Your task to perform on an android device: search for starred emails in the gmail app Image 0: 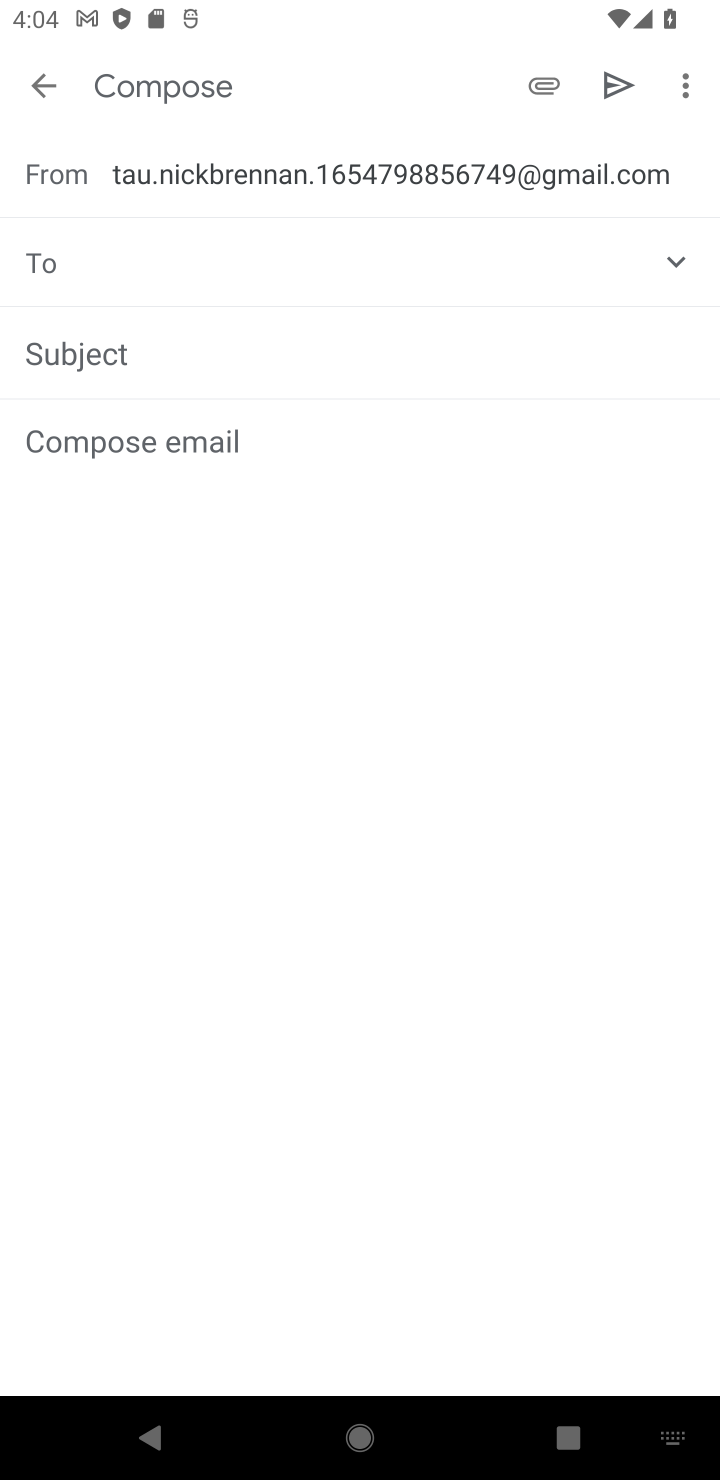
Step 0: press home button
Your task to perform on an android device: search for starred emails in the gmail app Image 1: 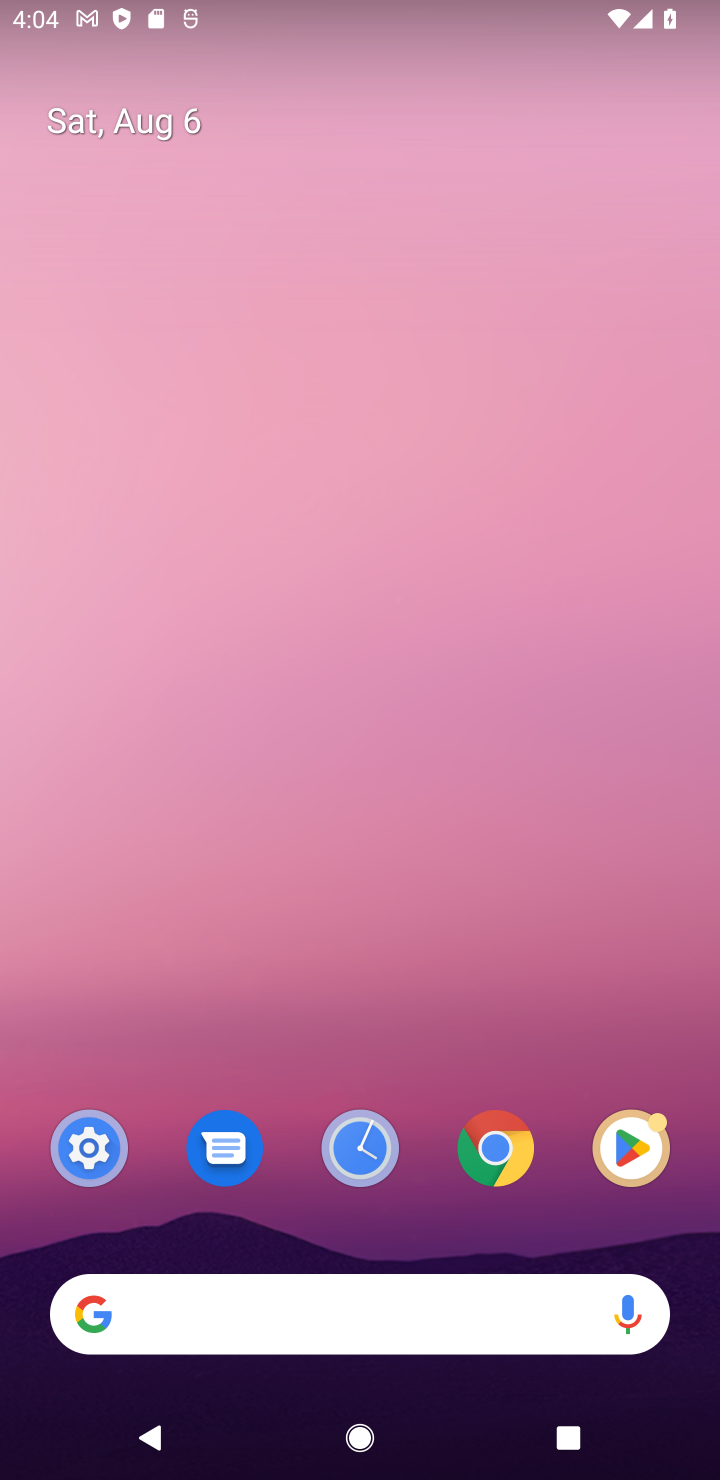
Step 1: drag from (319, 1142) to (356, 481)
Your task to perform on an android device: search for starred emails in the gmail app Image 2: 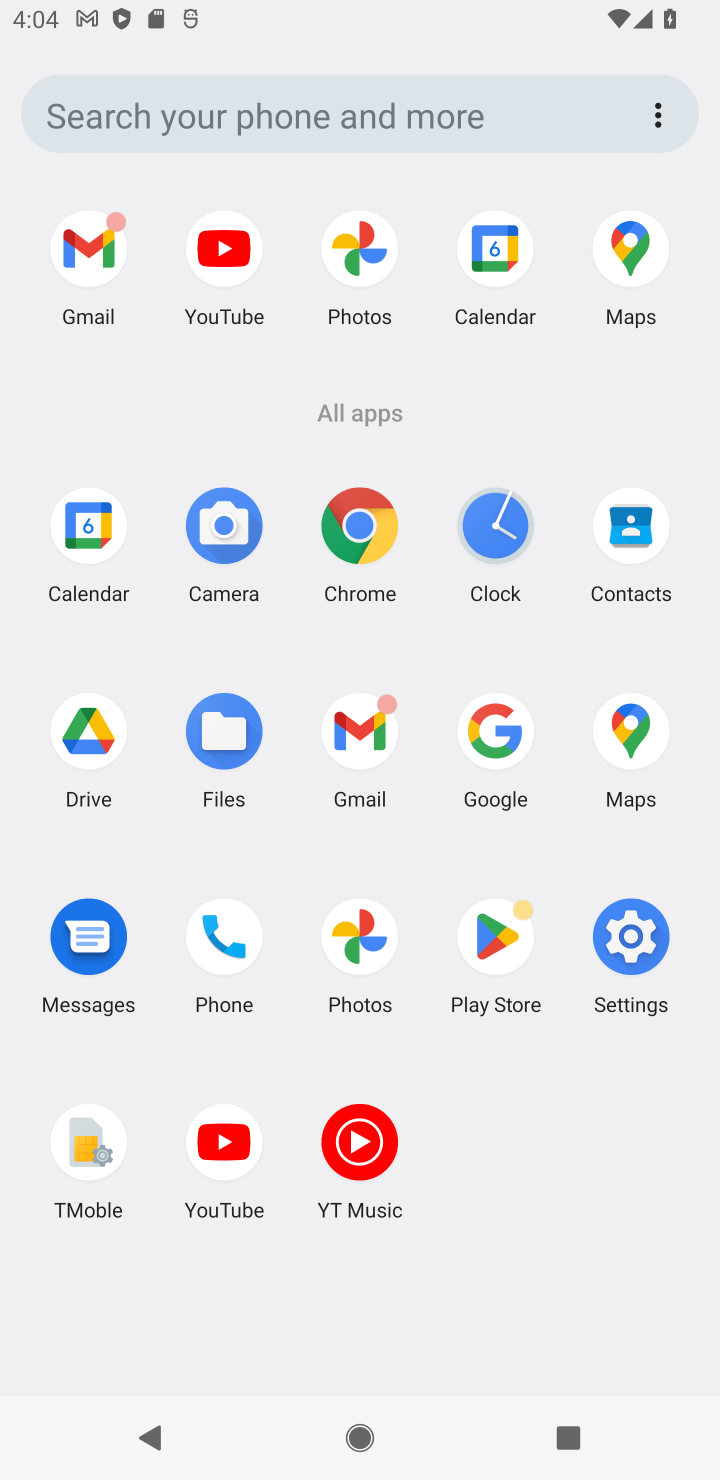
Step 2: click (362, 729)
Your task to perform on an android device: search for starred emails in the gmail app Image 3: 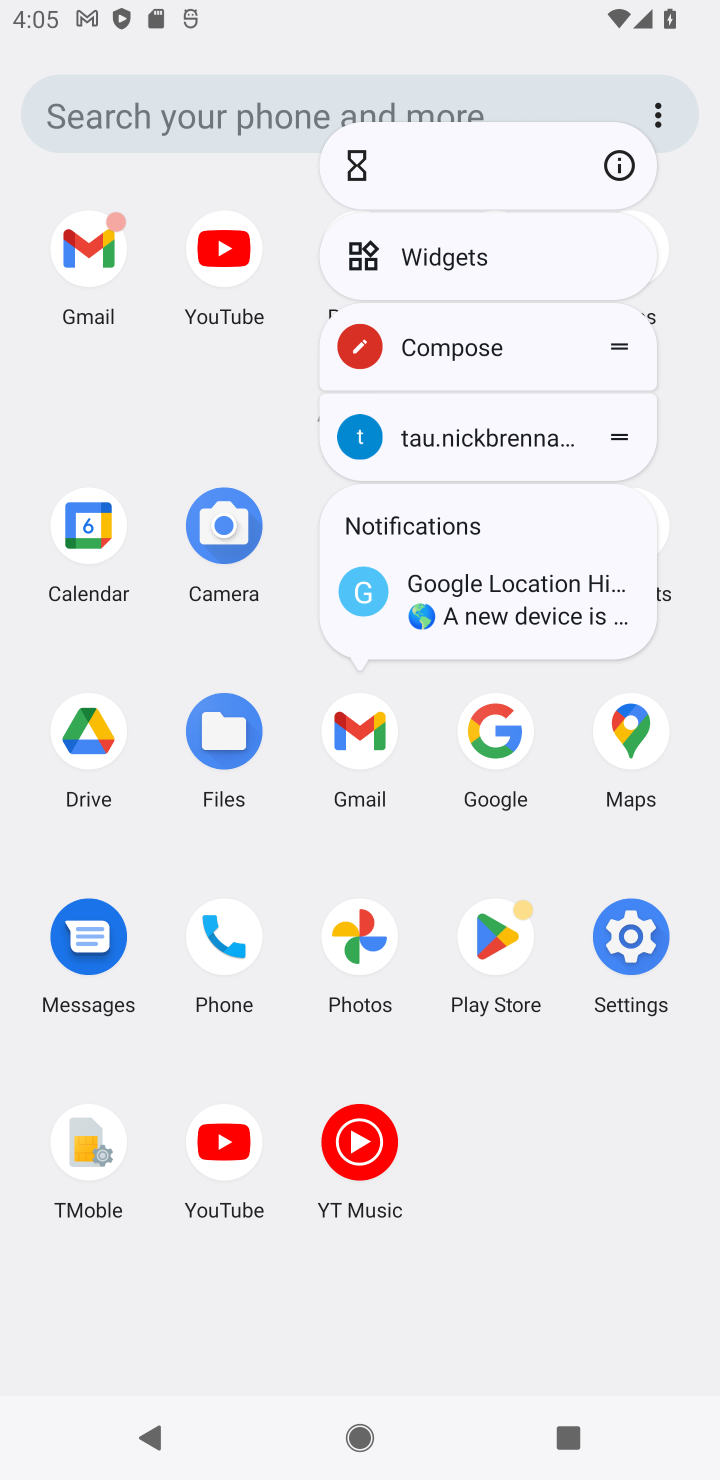
Step 3: click (610, 153)
Your task to perform on an android device: search for starred emails in the gmail app Image 4: 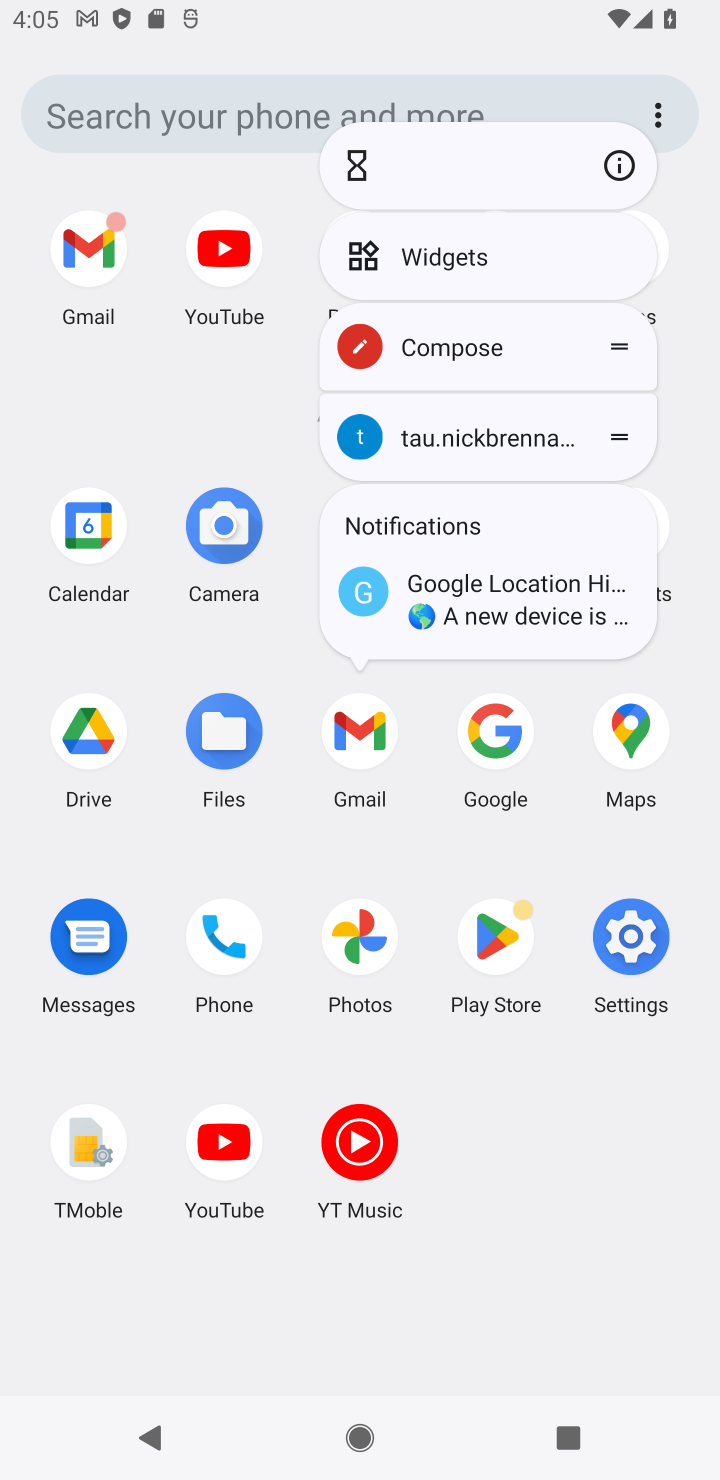
Step 4: click (615, 164)
Your task to perform on an android device: search for starred emails in the gmail app Image 5: 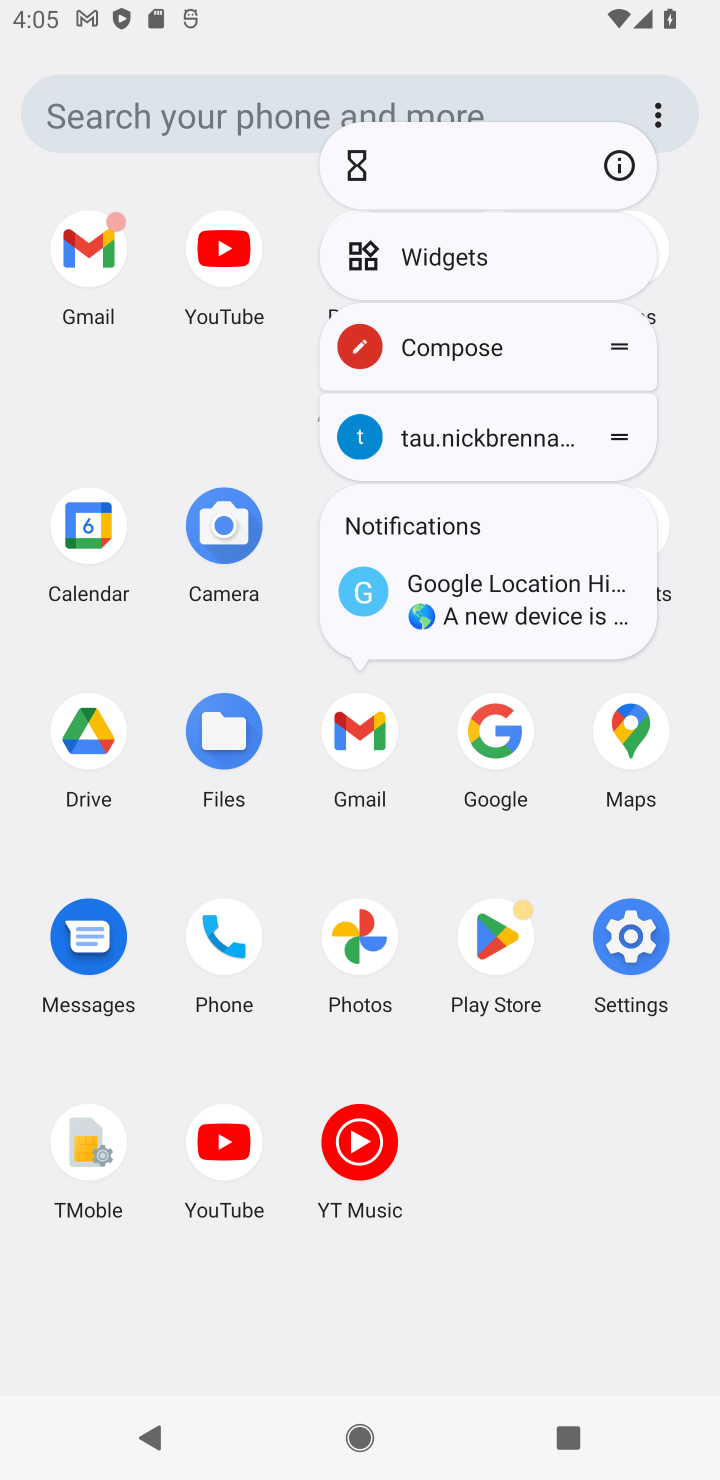
Step 5: click (617, 154)
Your task to perform on an android device: search for starred emails in the gmail app Image 6: 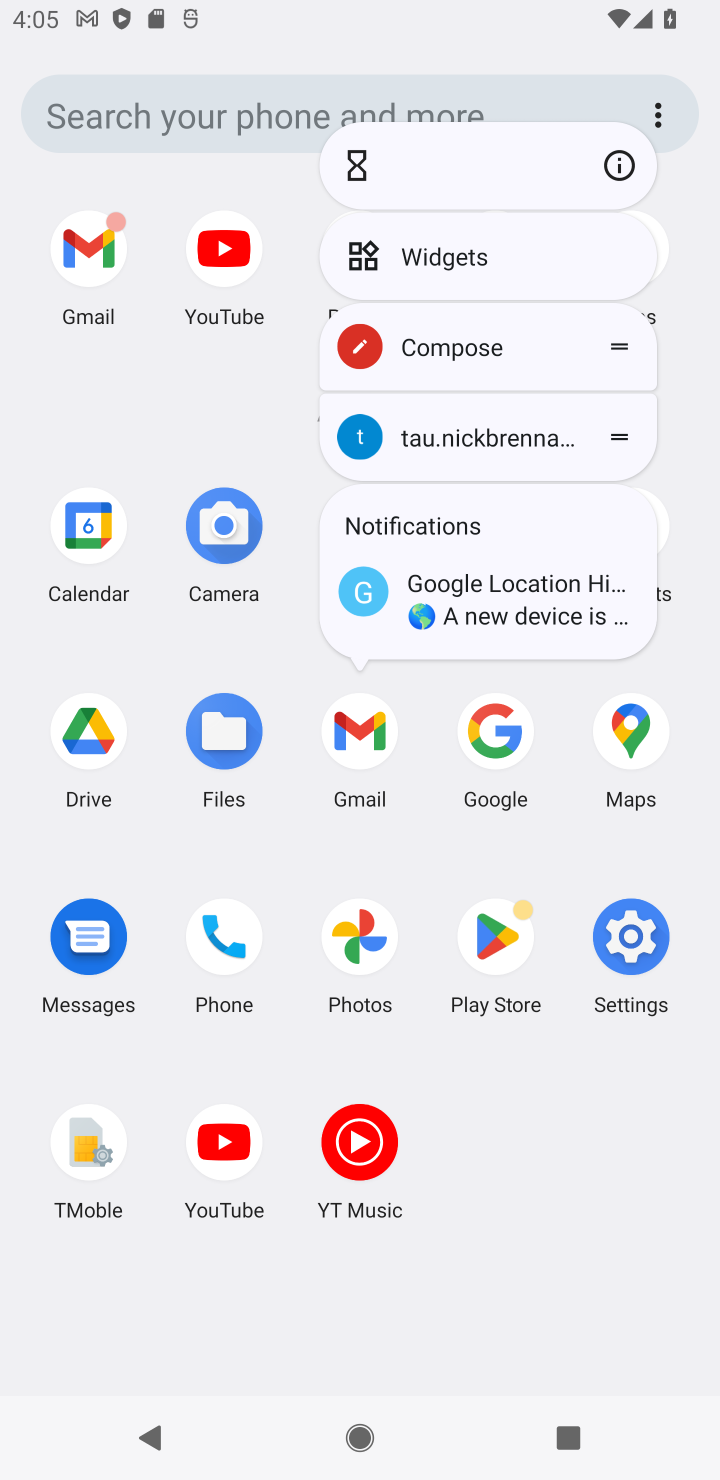
Step 6: click (625, 165)
Your task to perform on an android device: search for starred emails in the gmail app Image 7: 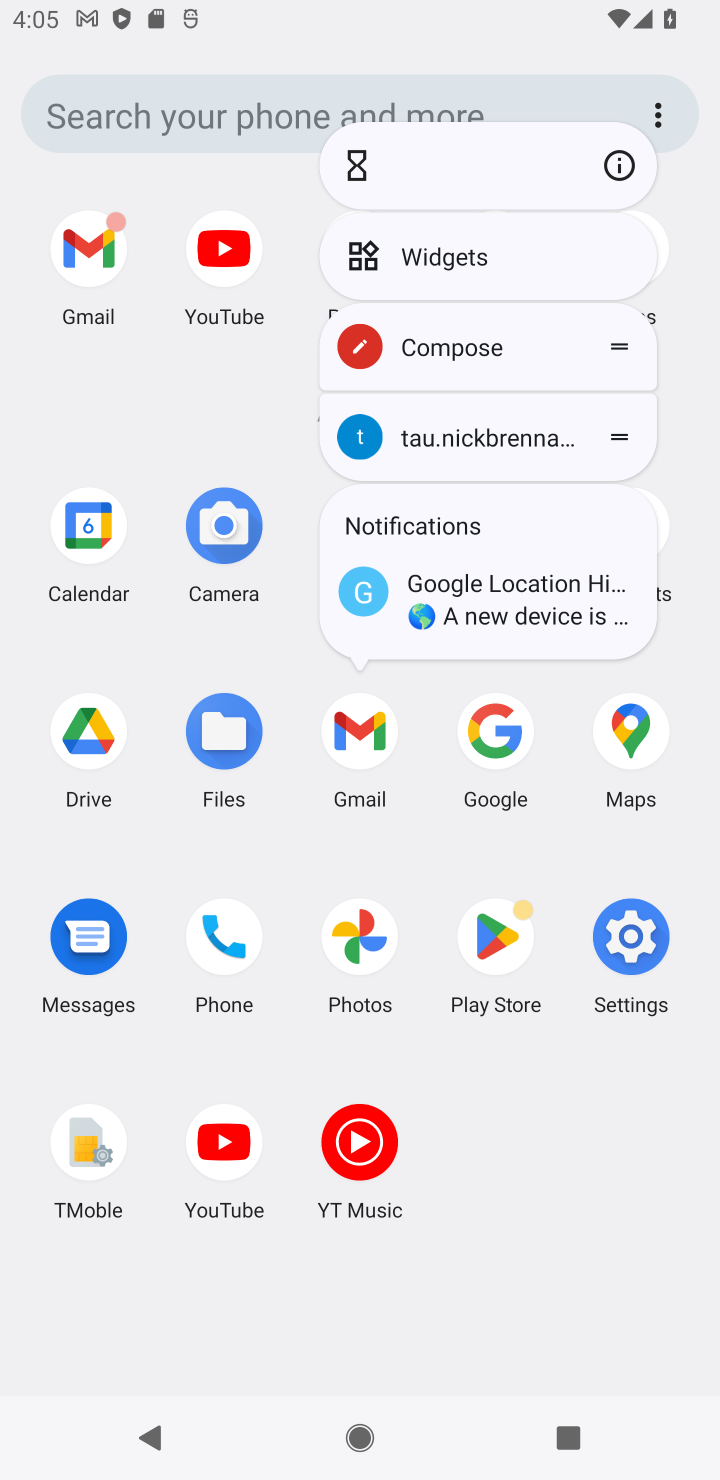
Step 7: click (601, 163)
Your task to perform on an android device: search for starred emails in the gmail app Image 8: 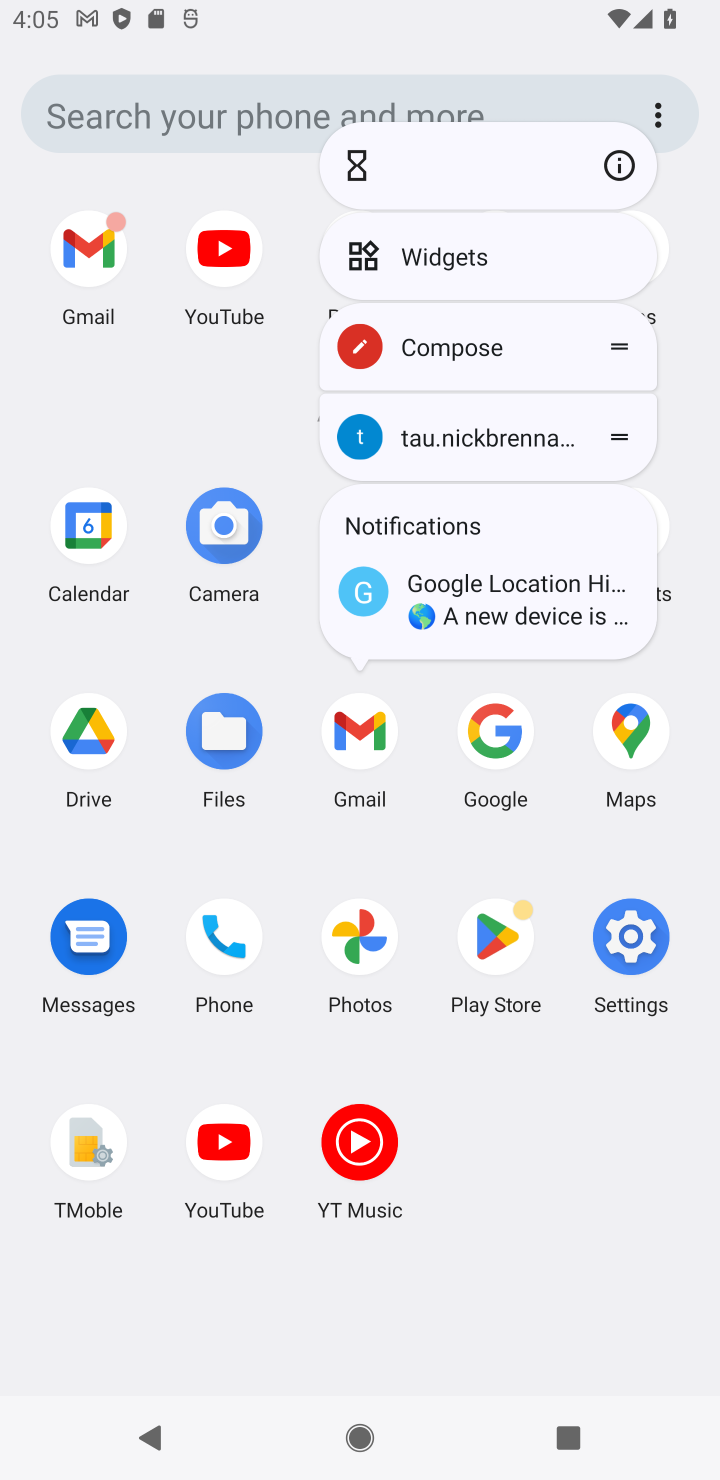
Step 8: click (623, 164)
Your task to perform on an android device: search for starred emails in the gmail app Image 9: 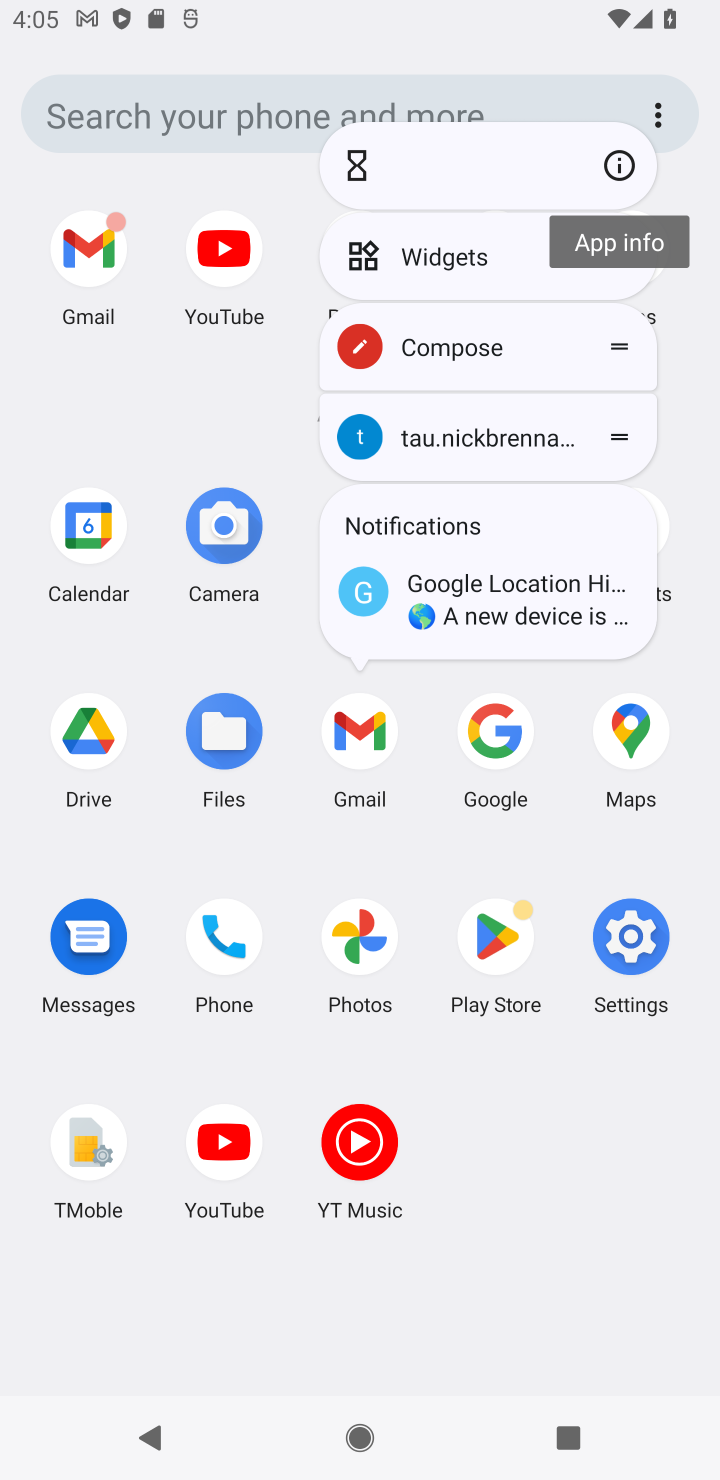
Step 9: click (623, 164)
Your task to perform on an android device: search for starred emails in the gmail app Image 10: 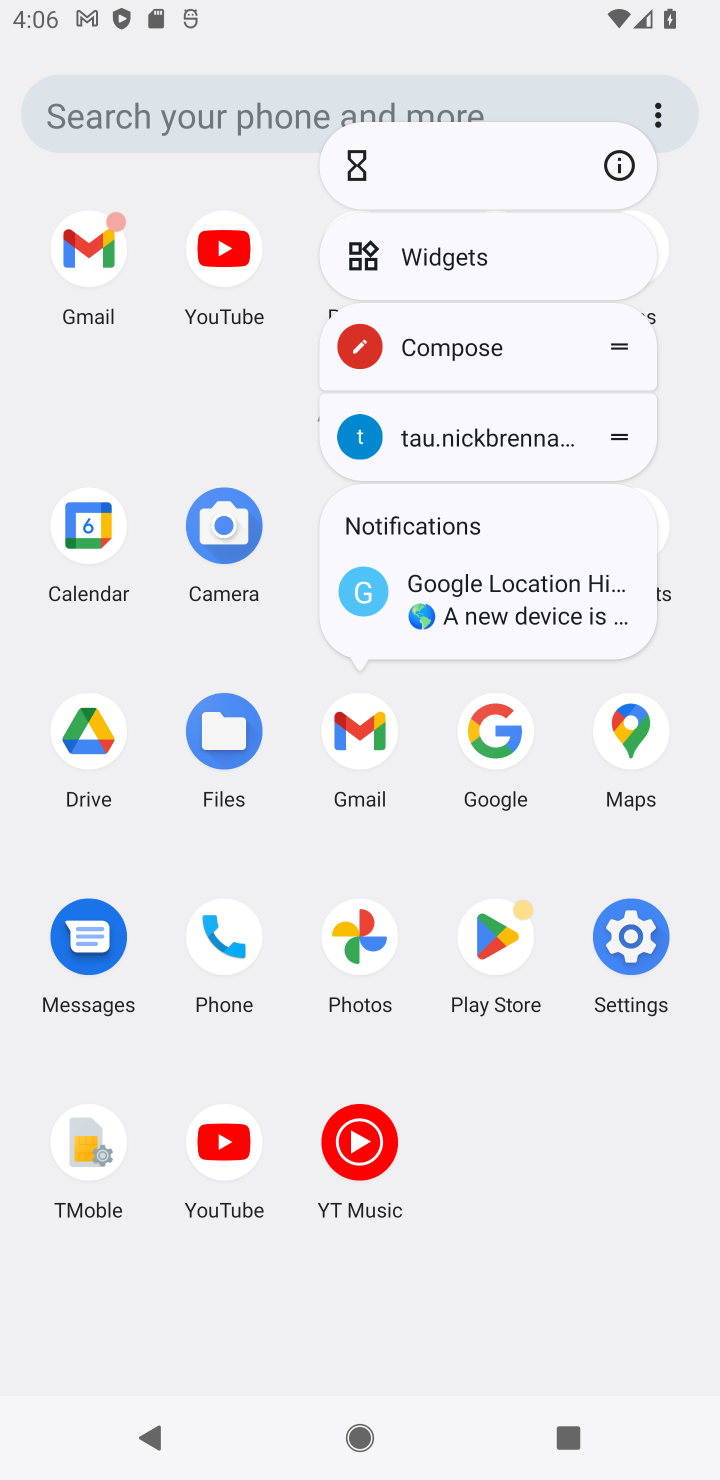
Step 10: click (618, 157)
Your task to perform on an android device: search for starred emails in the gmail app Image 11: 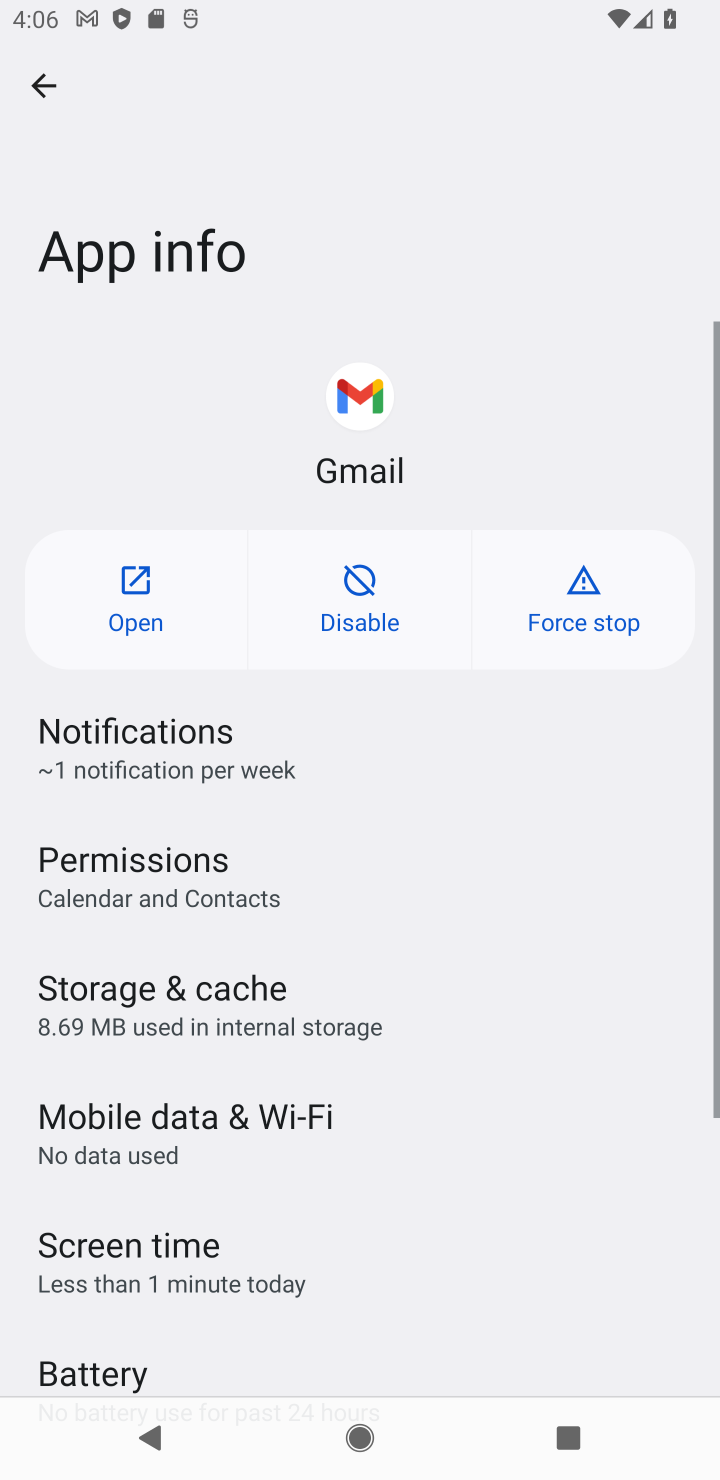
Step 11: click (144, 620)
Your task to perform on an android device: search for starred emails in the gmail app Image 12: 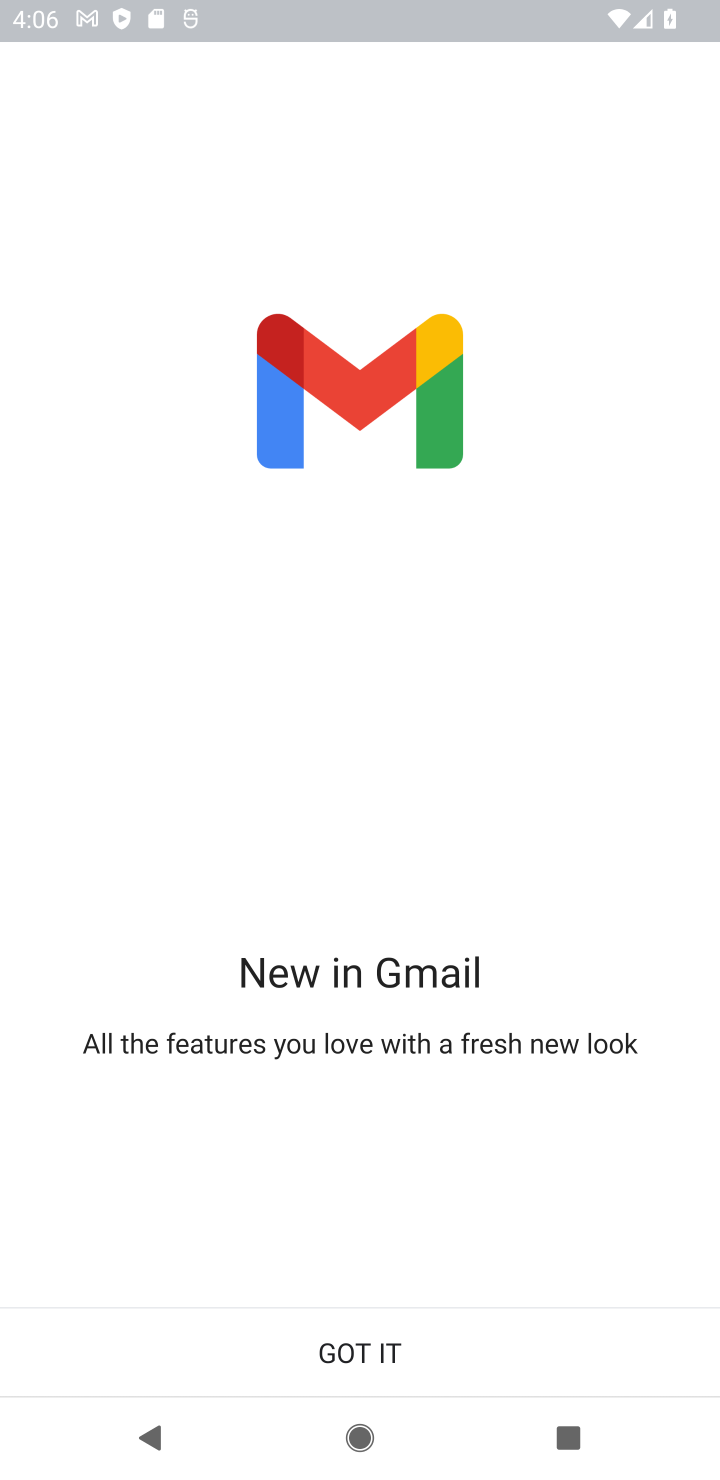
Step 12: click (377, 1349)
Your task to perform on an android device: search for starred emails in the gmail app Image 13: 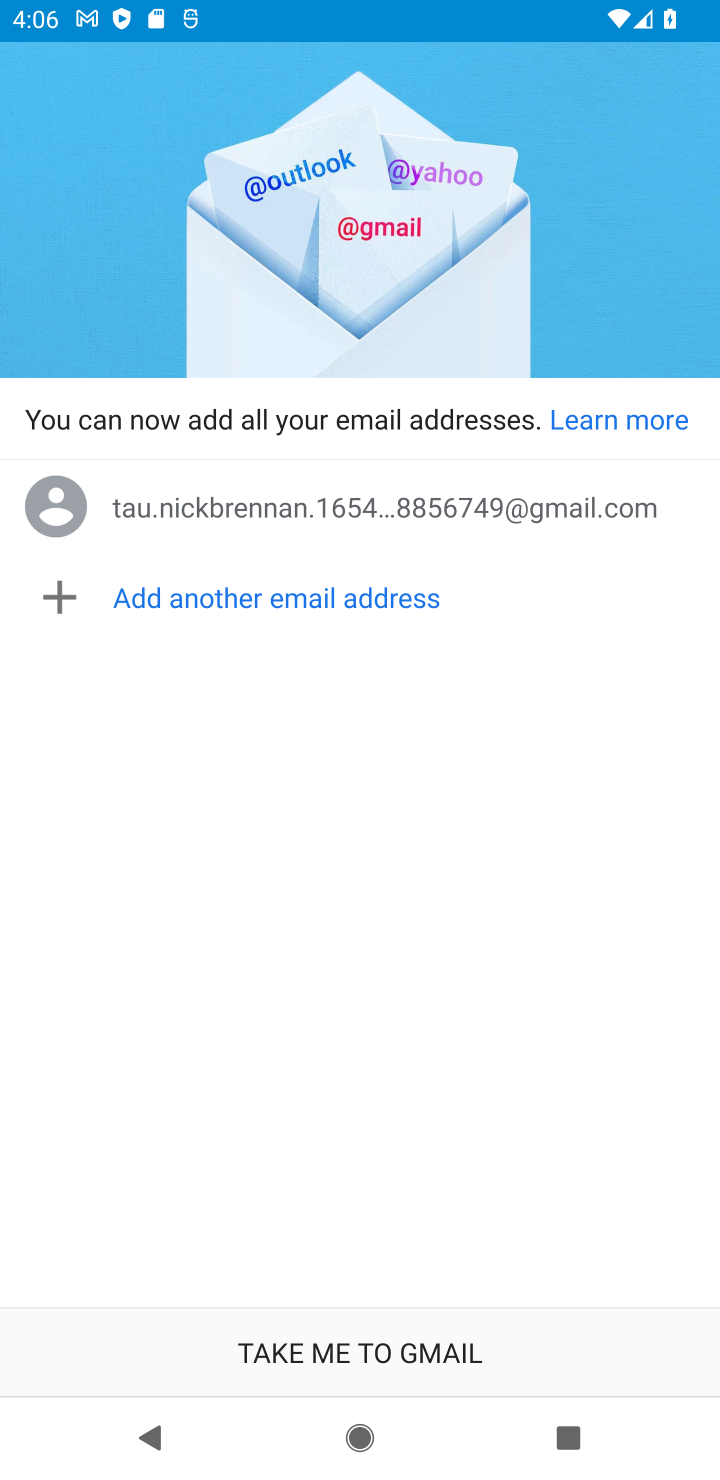
Step 13: click (358, 1343)
Your task to perform on an android device: search for starred emails in the gmail app Image 14: 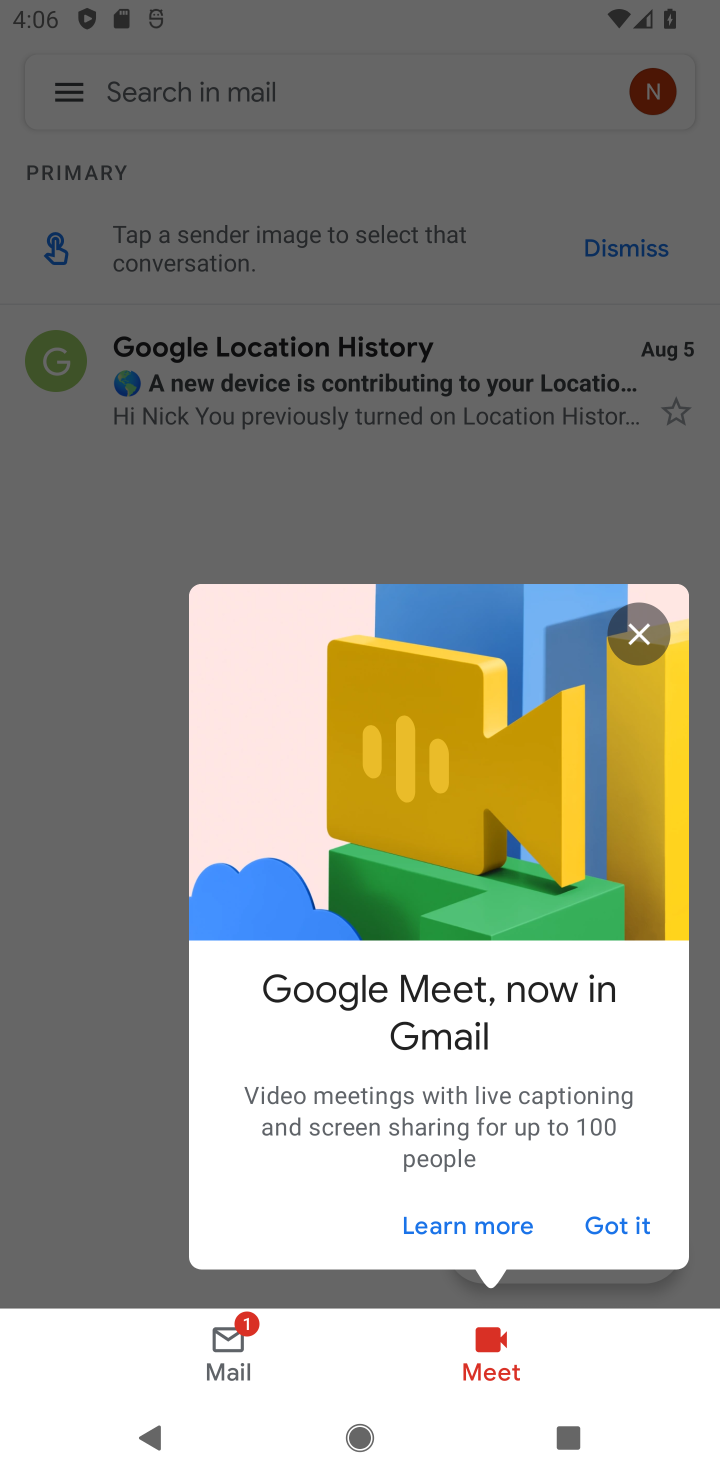
Step 14: click (633, 641)
Your task to perform on an android device: search for starred emails in the gmail app Image 15: 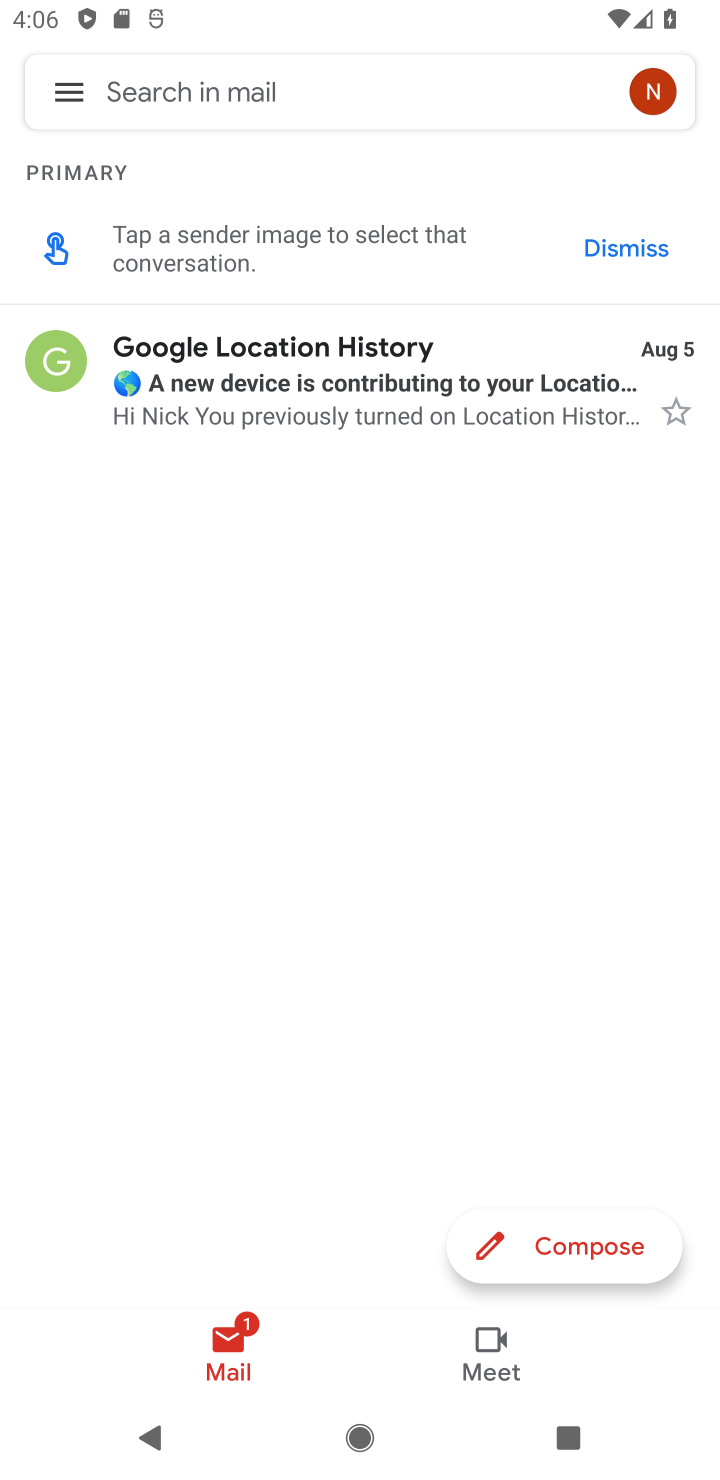
Step 15: drag from (251, 585) to (406, 1039)
Your task to perform on an android device: search for starred emails in the gmail app Image 16: 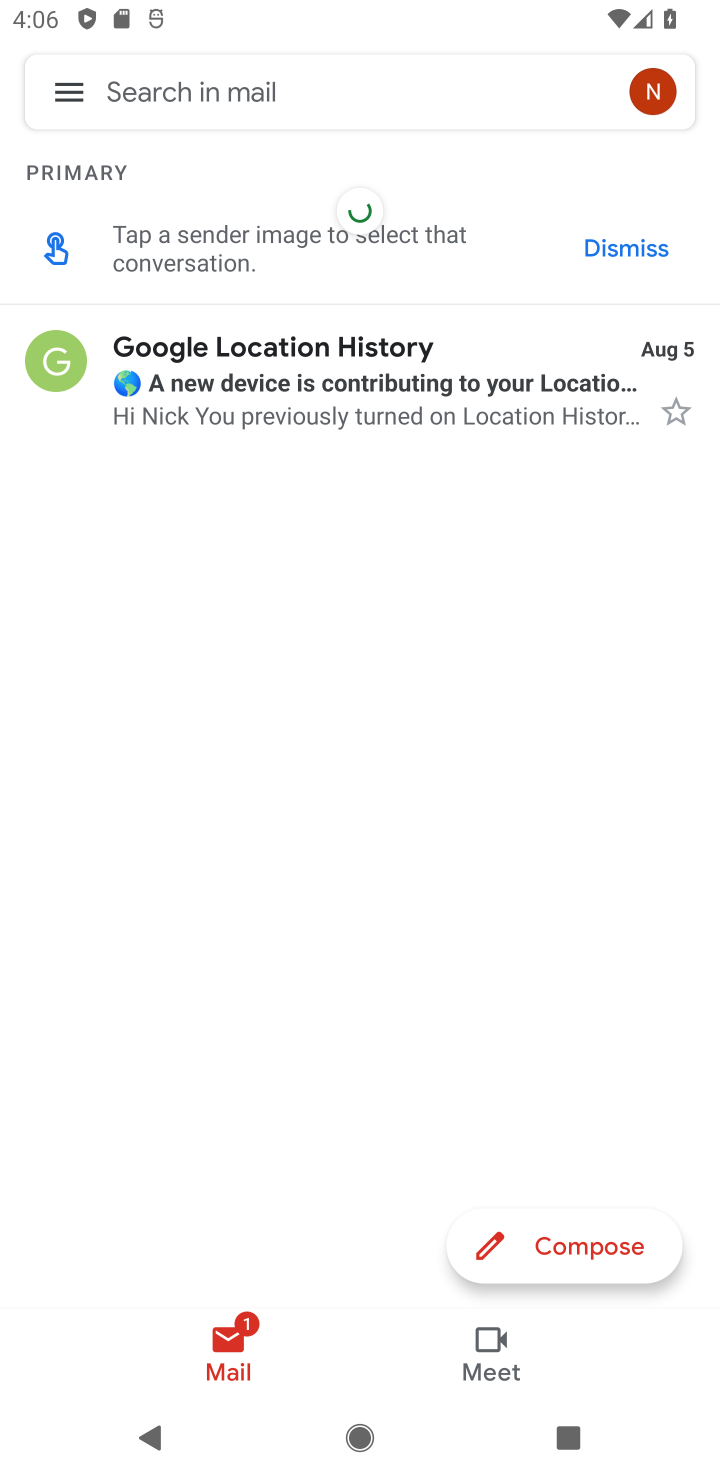
Step 16: click (72, 97)
Your task to perform on an android device: search for starred emails in the gmail app Image 17: 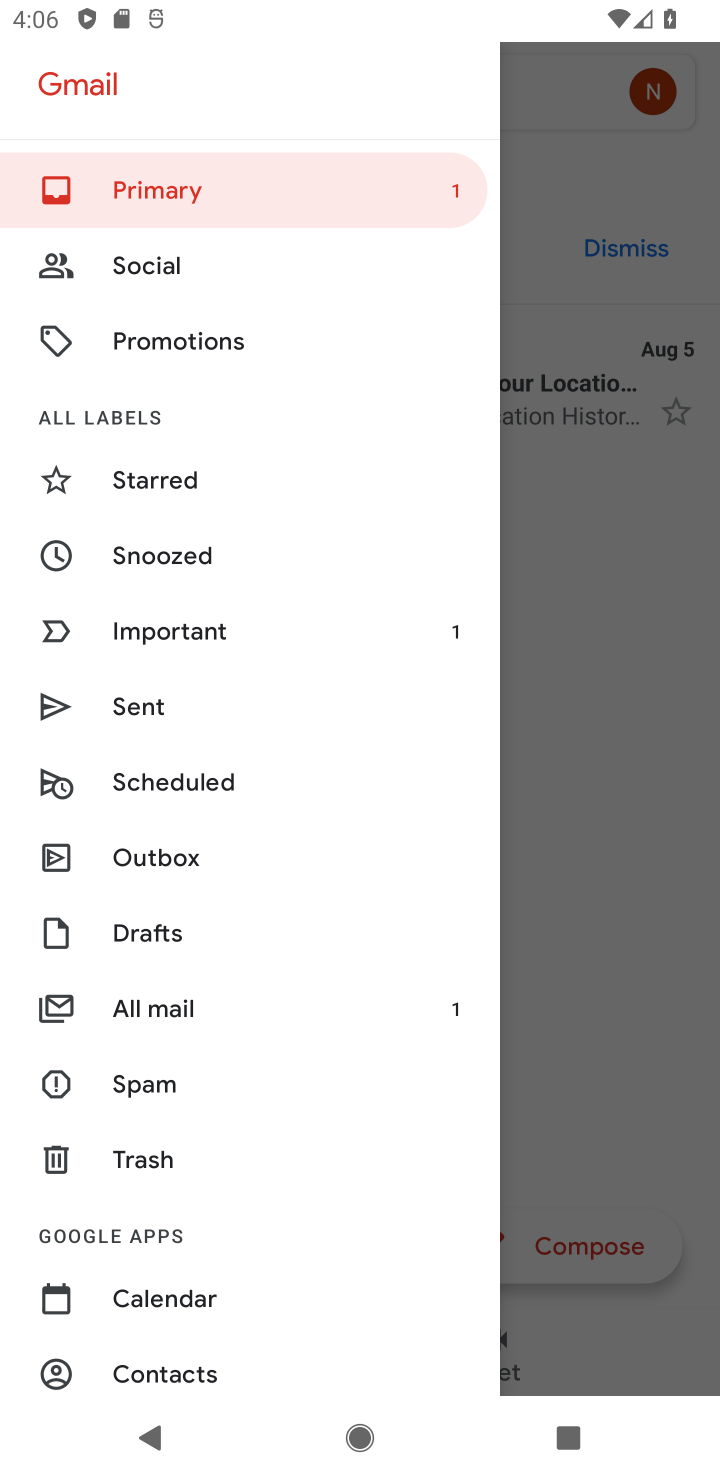
Step 17: click (195, 486)
Your task to perform on an android device: search for starred emails in the gmail app Image 18: 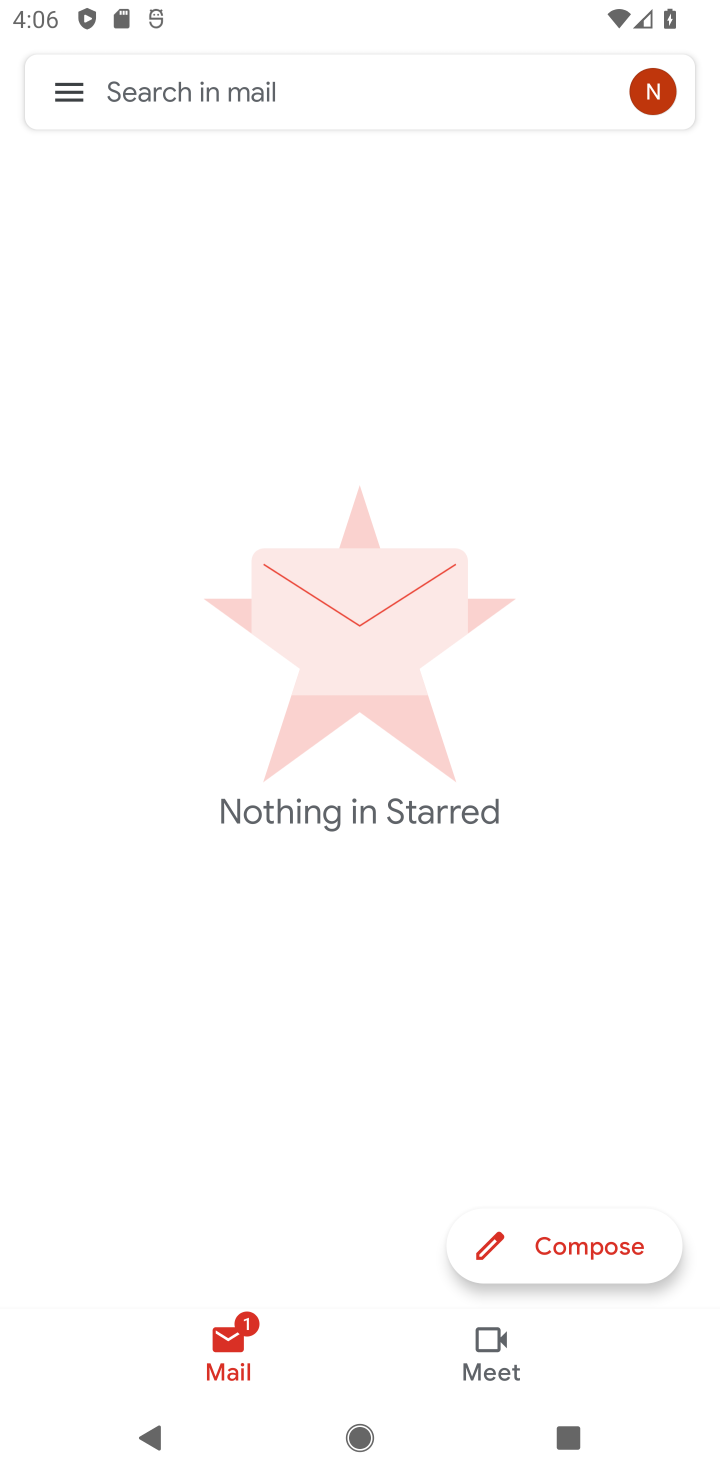
Step 18: drag from (302, 507) to (433, 877)
Your task to perform on an android device: search for starred emails in the gmail app Image 19: 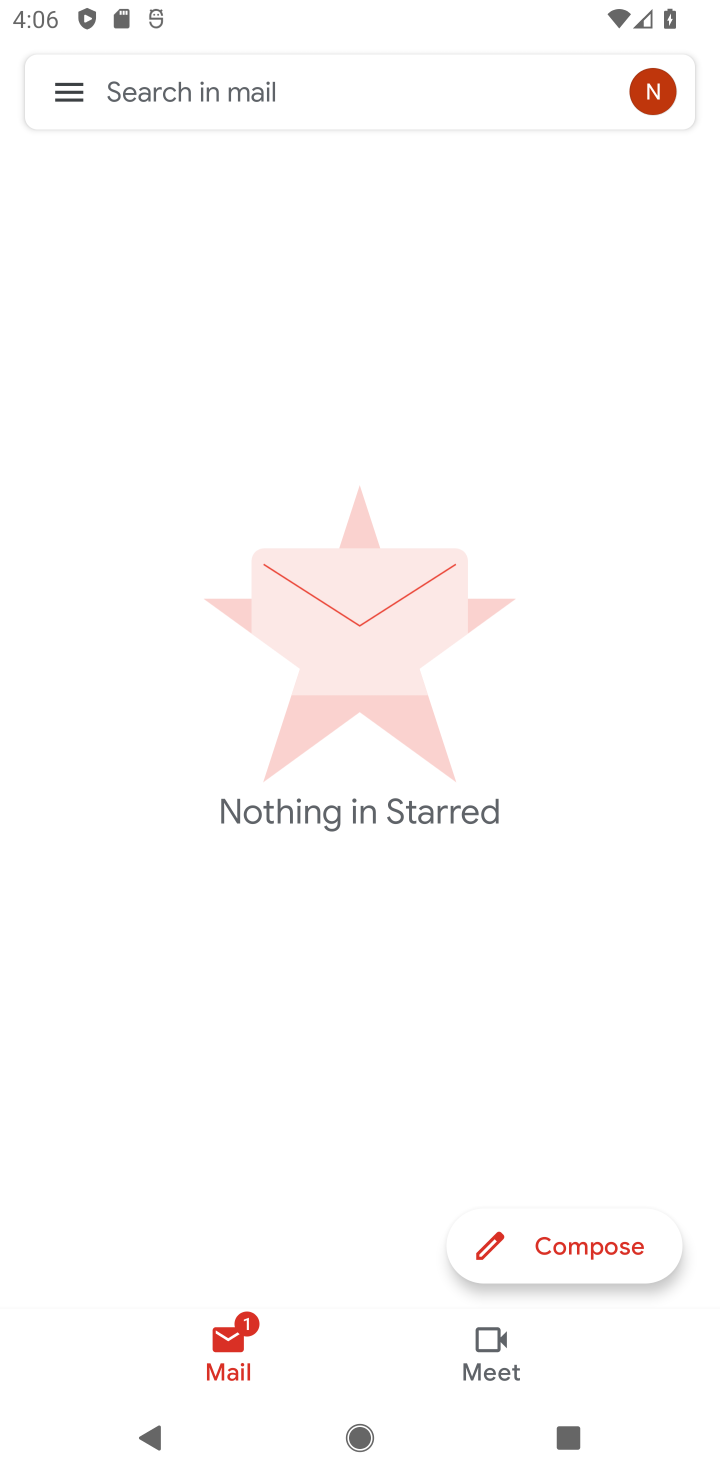
Step 19: drag from (391, 1069) to (359, 833)
Your task to perform on an android device: search for starred emails in the gmail app Image 20: 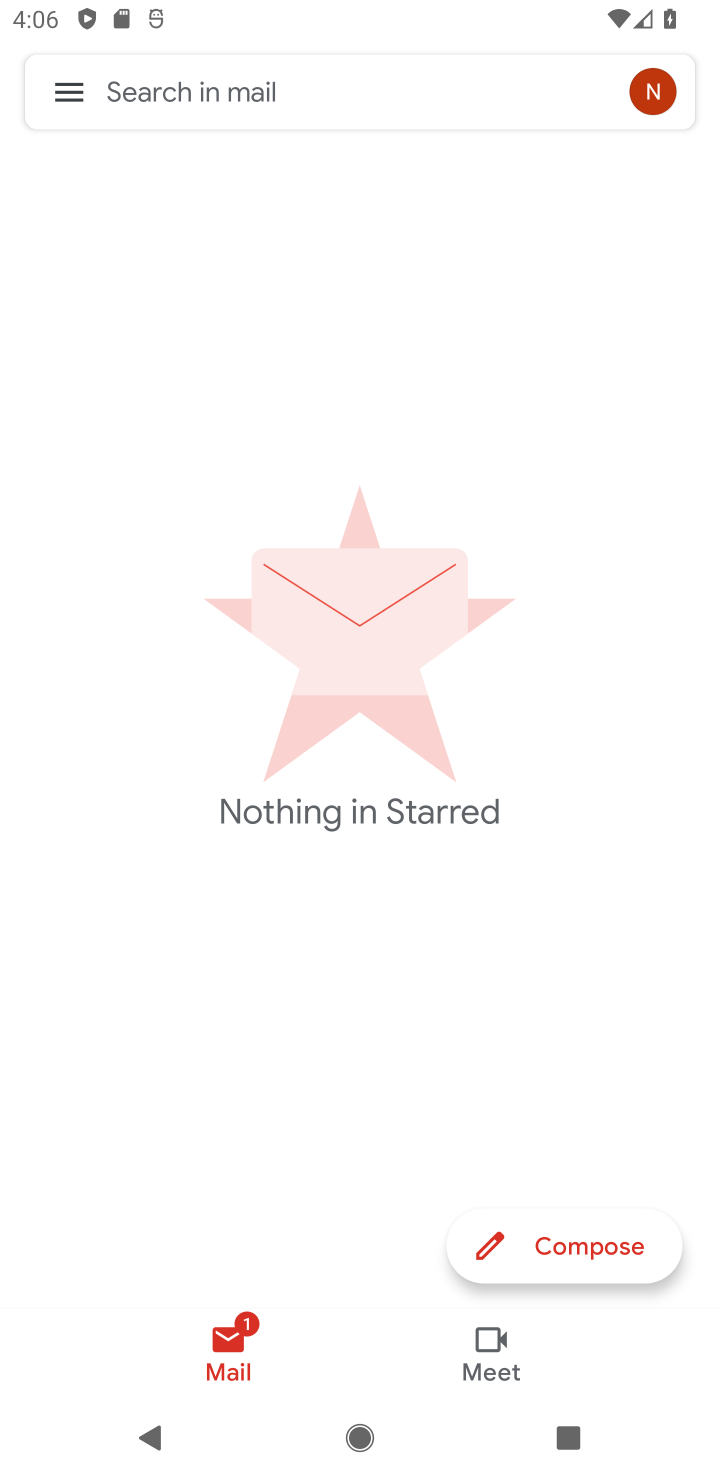
Step 20: click (56, 92)
Your task to perform on an android device: search for starred emails in the gmail app Image 21: 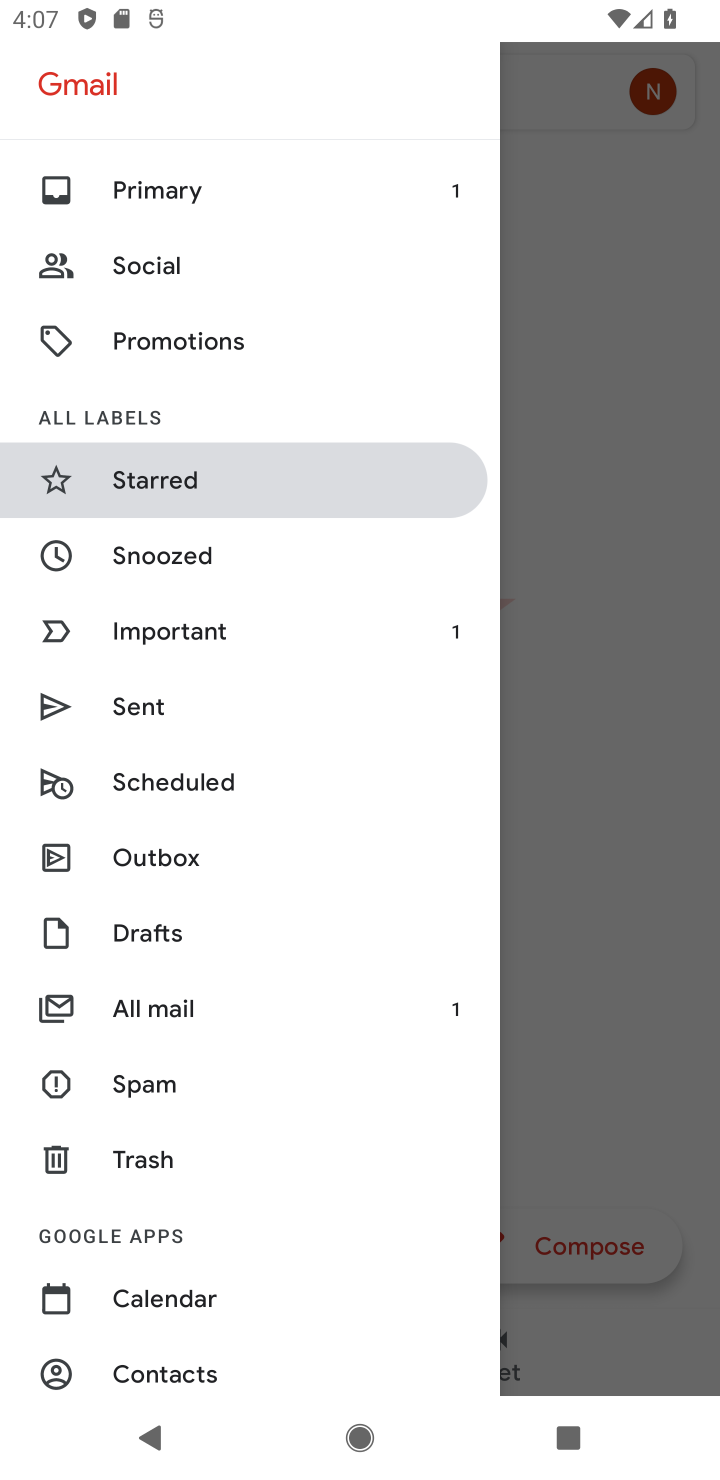
Step 21: click (180, 473)
Your task to perform on an android device: search for starred emails in the gmail app Image 22: 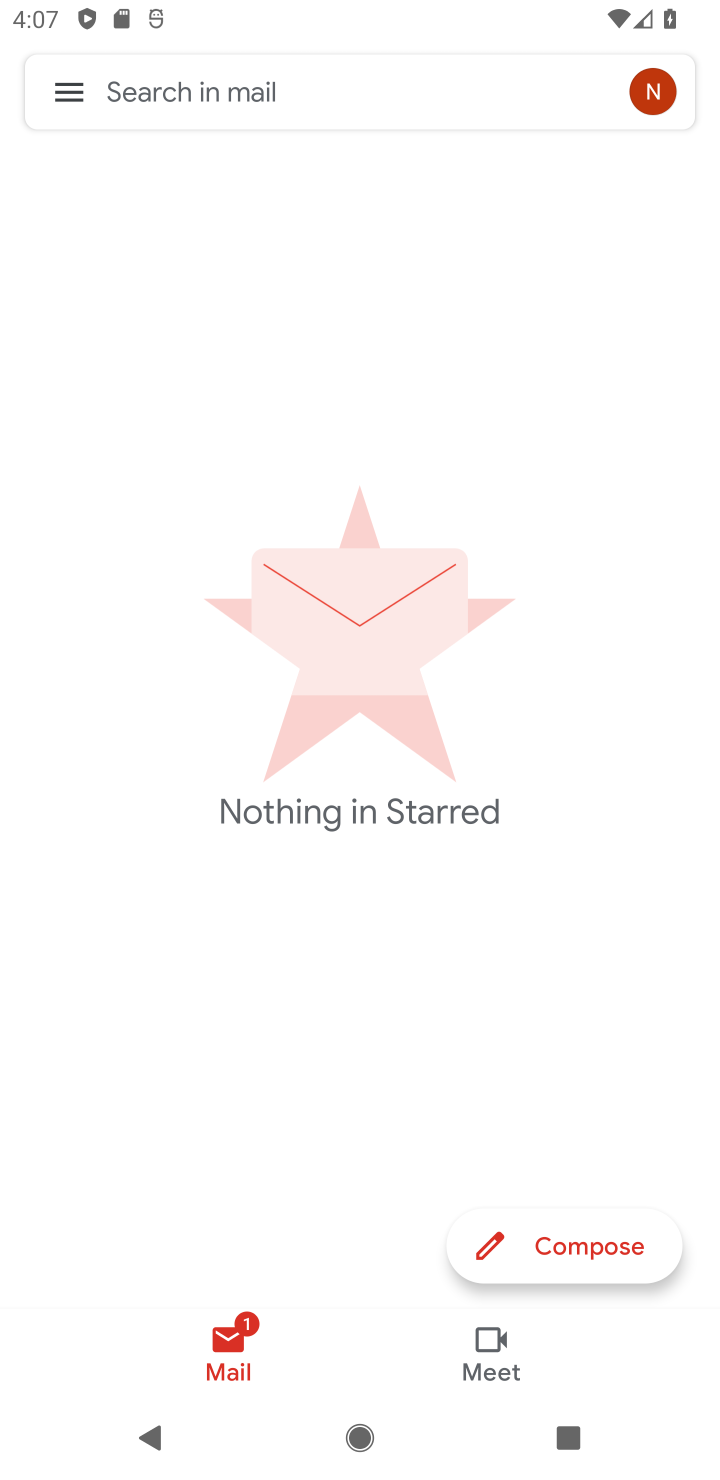
Step 22: click (343, 841)
Your task to perform on an android device: search for starred emails in the gmail app Image 23: 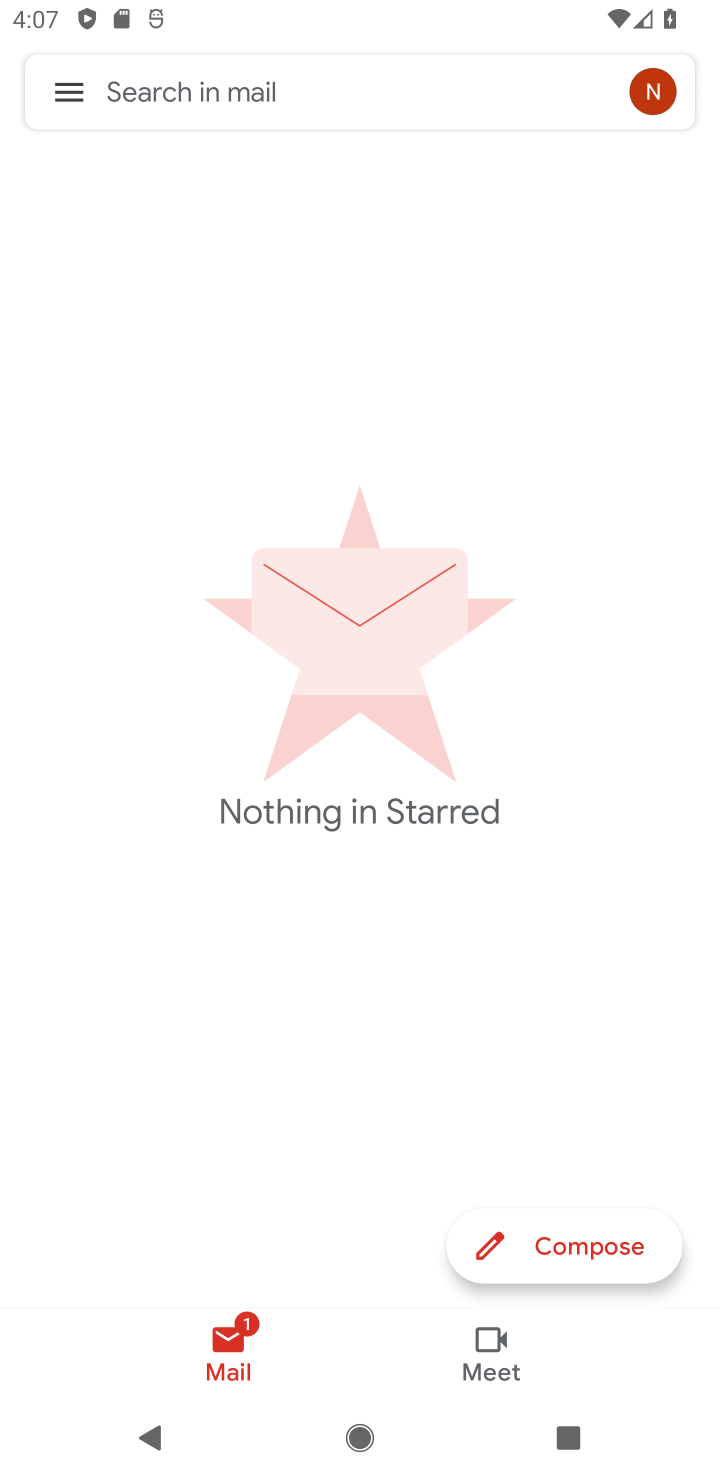
Step 23: click (71, 83)
Your task to perform on an android device: search for starred emails in the gmail app Image 24: 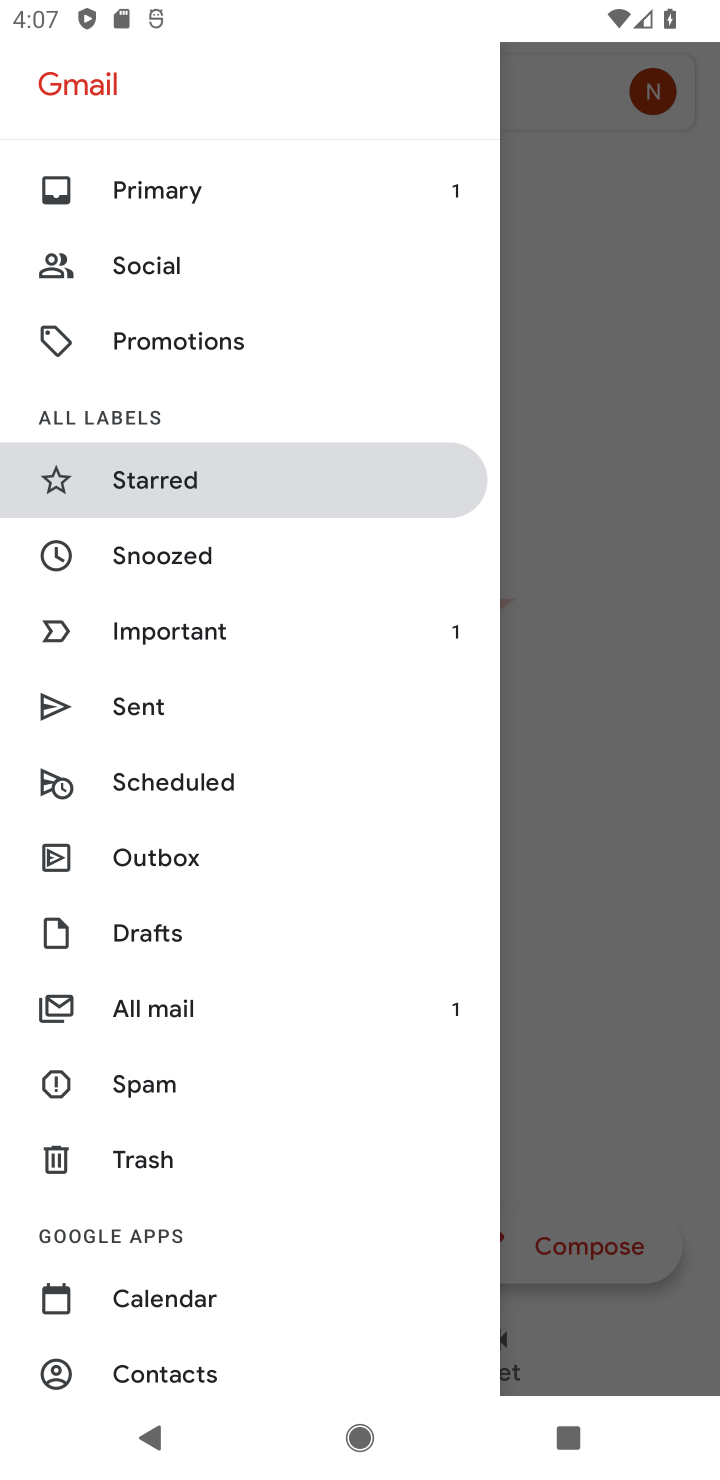
Step 24: click (206, 483)
Your task to perform on an android device: search for starred emails in the gmail app Image 25: 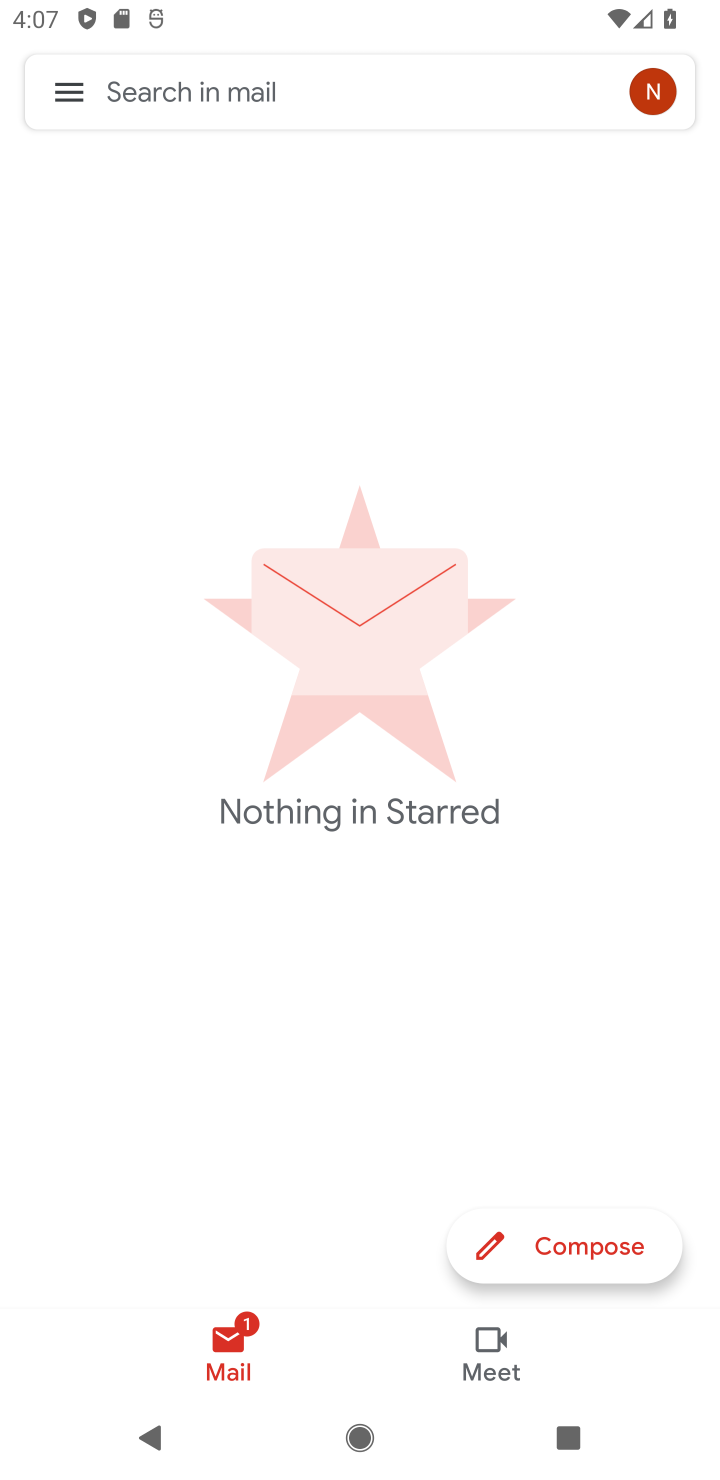
Step 25: task complete